Your task to perform on an android device: change the clock style Image 0: 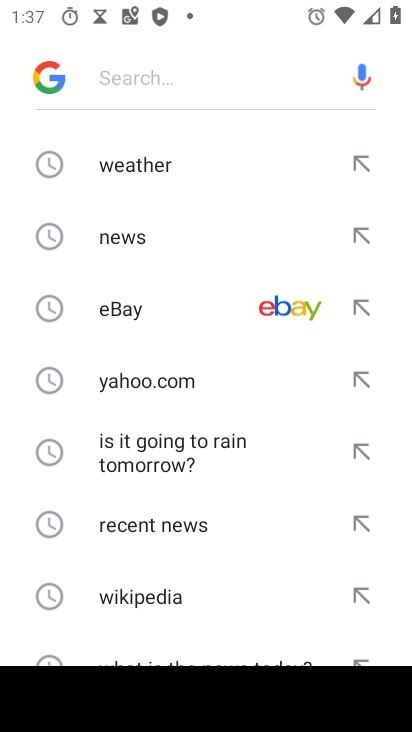
Step 0: press home button
Your task to perform on an android device: change the clock style Image 1: 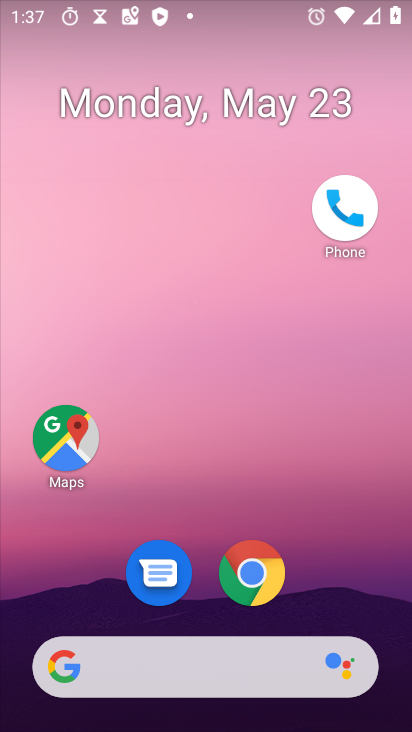
Step 1: drag from (223, 675) to (334, 71)
Your task to perform on an android device: change the clock style Image 2: 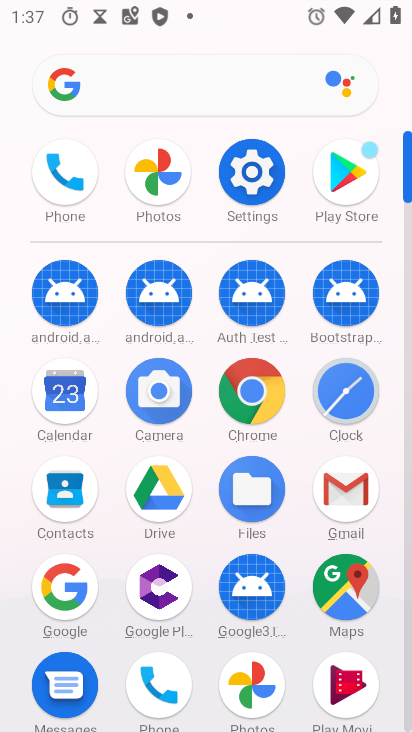
Step 2: click (364, 389)
Your task to perform on an android device: change the clock style Image 3: 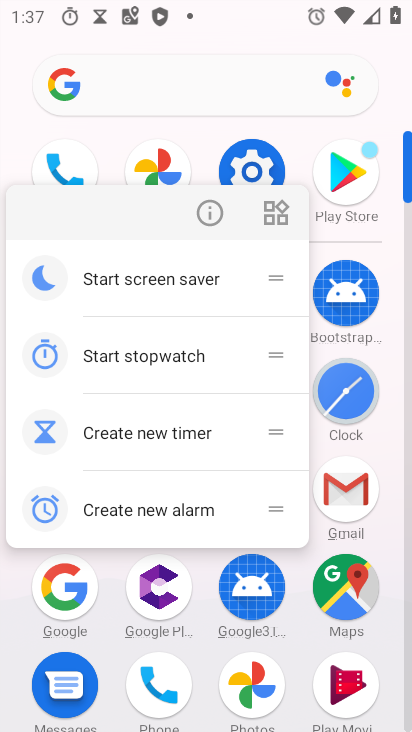
Step 3: click (344, 403)
Your task to perform on an android device: change the clock style Image 4: 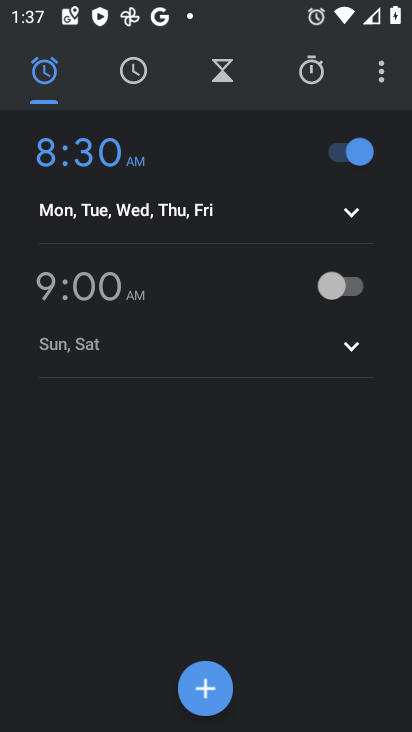
Step 4: click (386, 89)
Your task to perform on an android device: change the clock style Image 5: 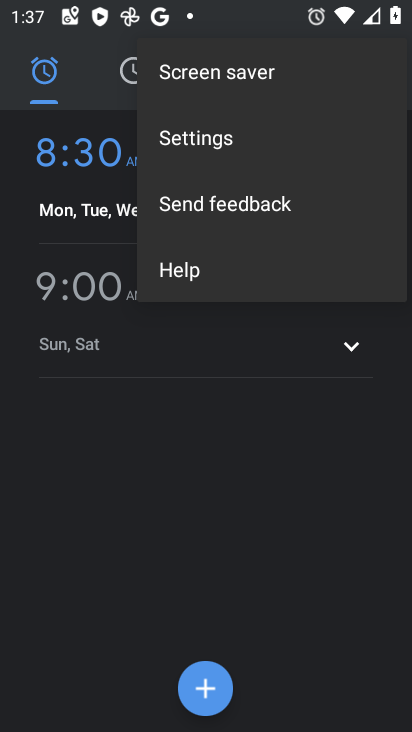
Step 5: click (212, 141)
Your task to perform on an android device: change the clock style Image 6: 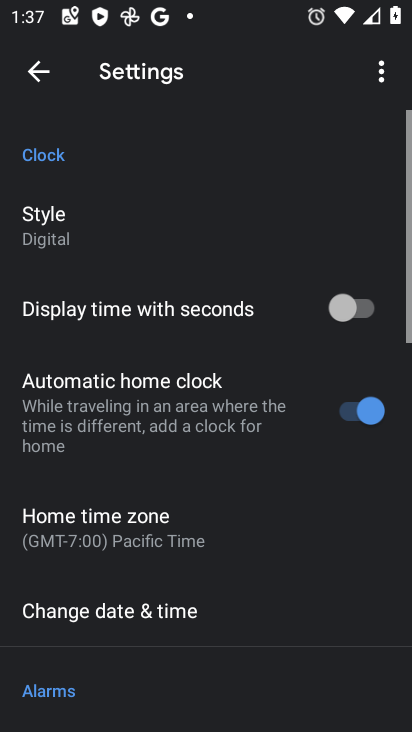
Step 6: click (42, 227)
Your task to perform on an android device: change the clock style Image 7: 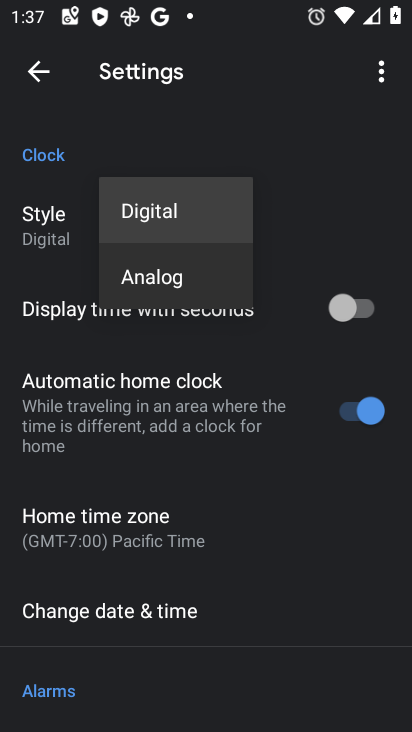
Step 7: click (179, 277)
Your task to perform on an android device: change the clock style Image 8: 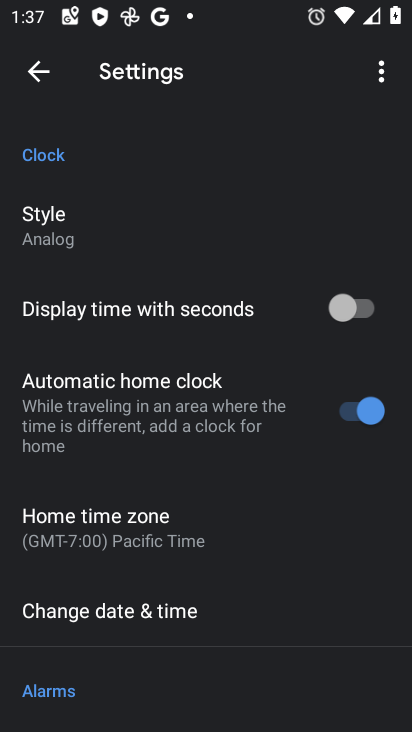
Step 8: task complete